Your task to perform on an android device: Go to Reddit.com Image 0: 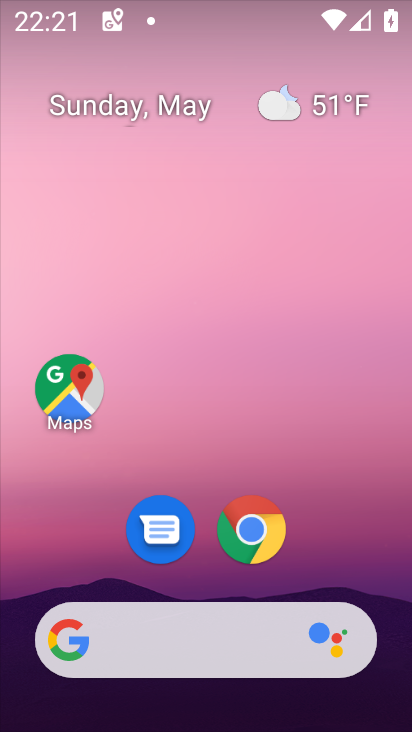
Step 0: drag from (337, 659) to (386, 26)
Your task to perform on an android device: Go to Reddit.com Image 1: 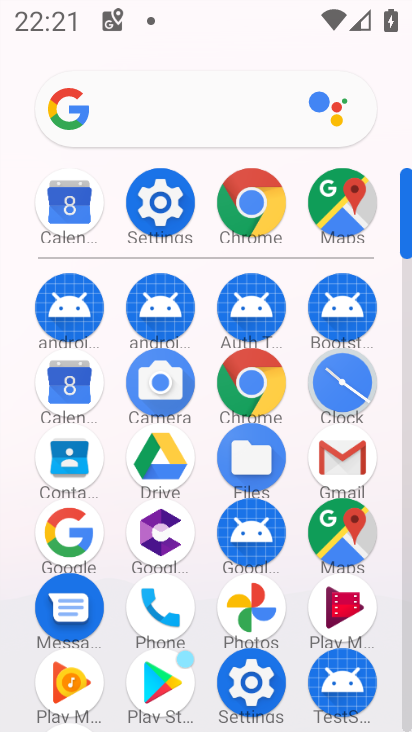
Step 1: click (237, 381)
Your task to perform on an android device: Go to Reddit.com Image 2: 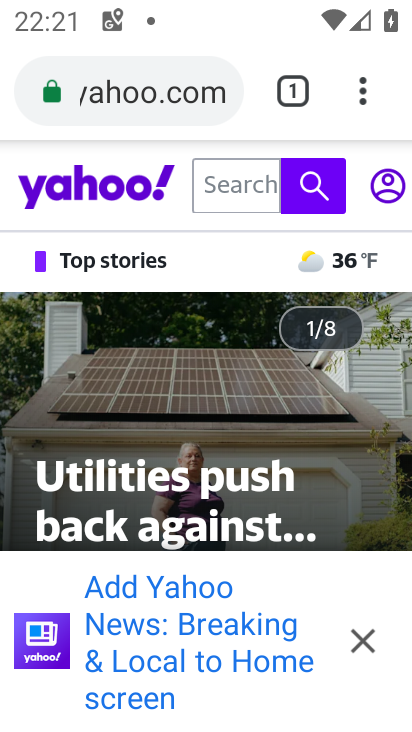
Step 2: click (146, 87)
Your task to perform on an android device: Go to Reddit.com Image 3: 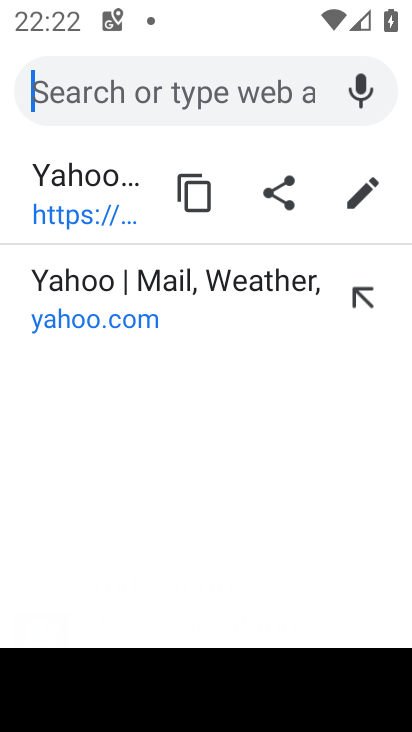
Step 3: type "reddit.com"
Your task to perform on an android device: Go to Reddit.com Image 4: 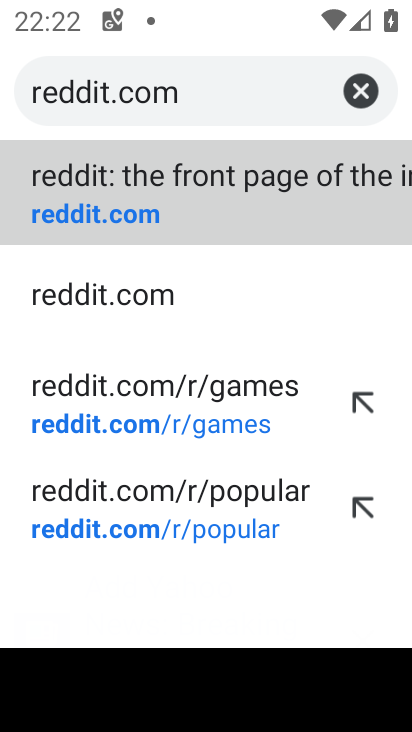
Step 4: click (205, 205)
Your task to perform on an android device: Go to Reddit.com Image 5: 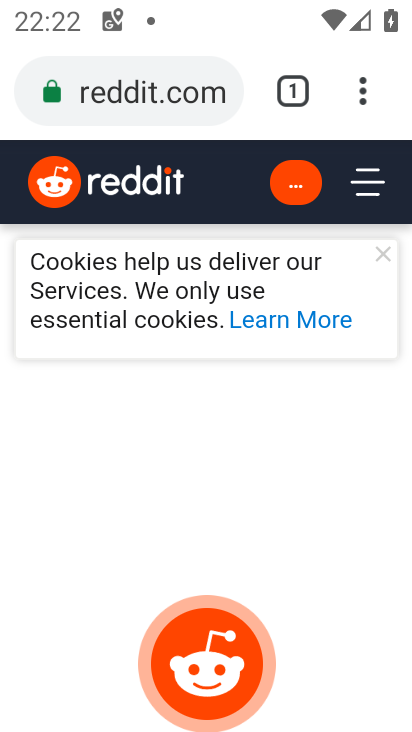
Step 5: task complete